Your task to perform on an android device: Show me the alarms in the clock app Image 0: 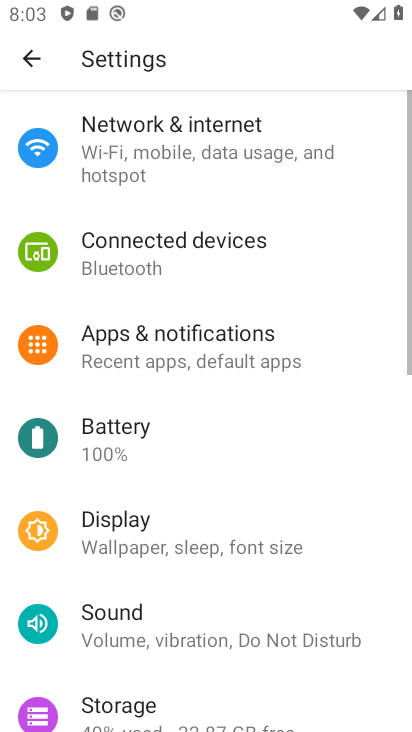
Step 0: press home button
Your task to perform on an android device: Show me the alarms in the clock app Image 1: 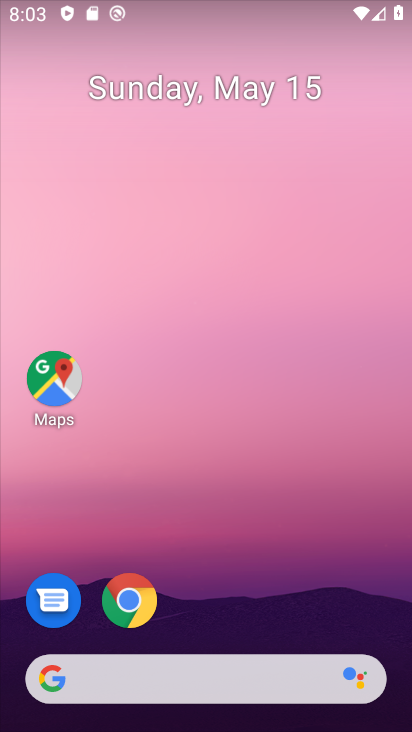
Step 1: drag from (246, 497) to (113, 102)
Your task to perform on an android device: Show me the alarms in the clock app Image 2: 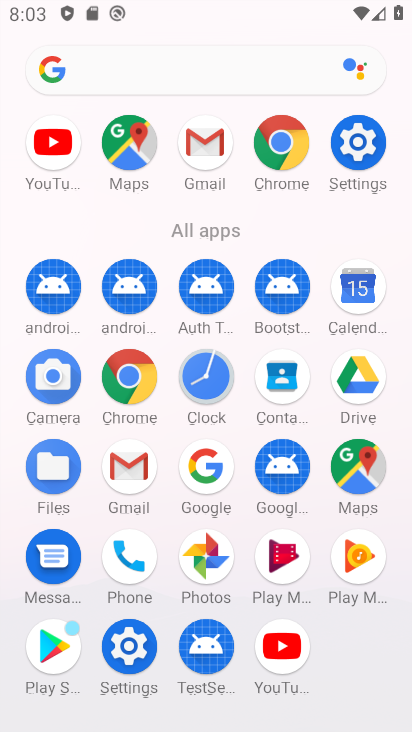
Step 2: click (211, 377)
Your task to perform on an android device: Show me the alarms in the clock app Image 3: 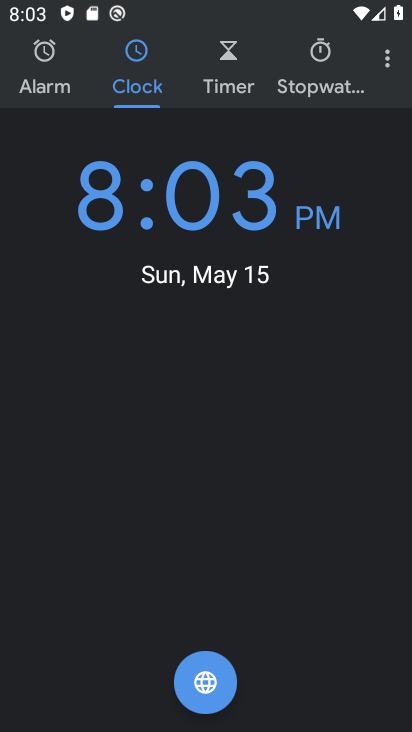
Step 3: click (50, 88)
Your task to perform on an android device: Show me the alarms in the clock app Image 4: 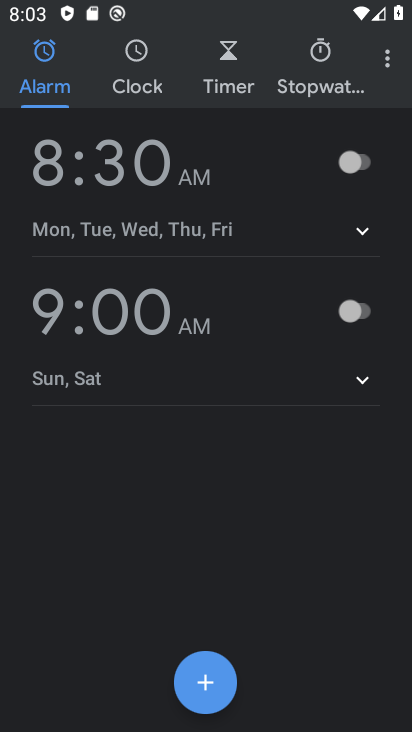
Step 4: task complete